Your task to perform on an android device: turn pop-ups off in chrome Image 0: 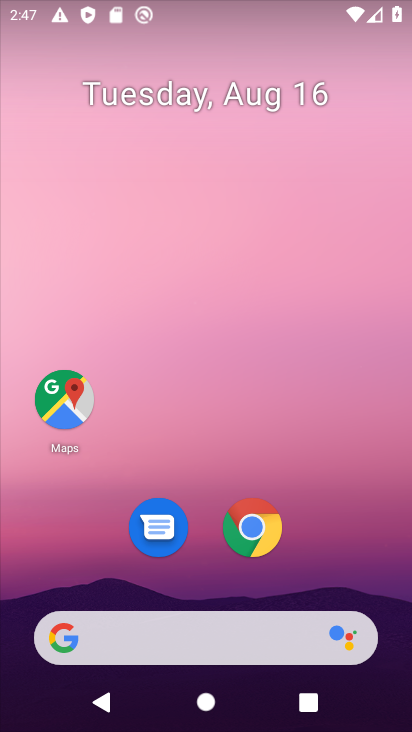
Step 0: press home button
Your task to perform on an android device: turn pop-ups off in chrome Image 1: 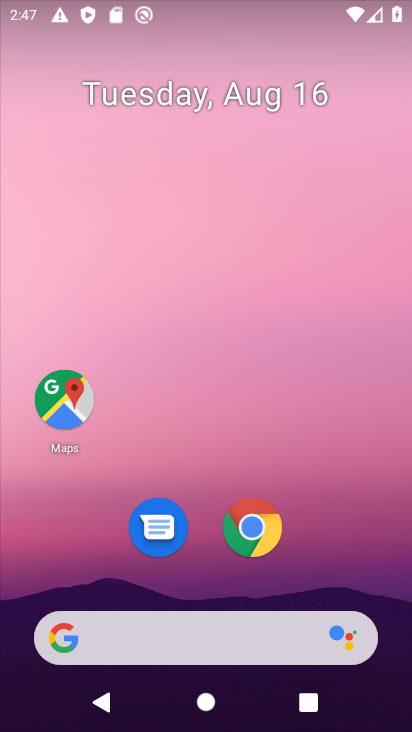
Step 1: click (251, 525)
Your task to perform on an android device: turn pop-ups off in chrome Image 2: 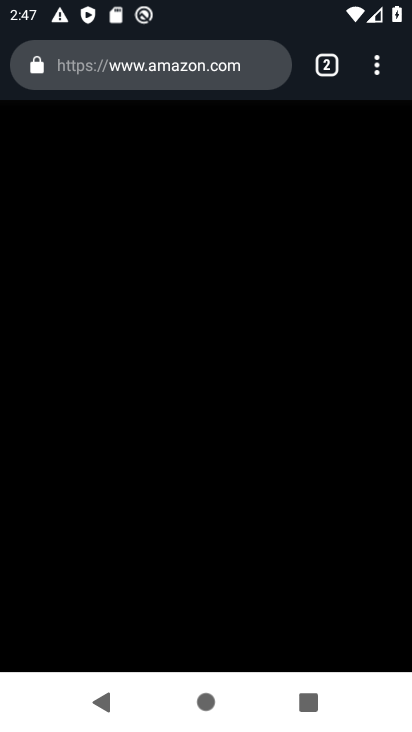
Step 2: click (323, 70)
Your task to perform on an android device: turn pop-ups off in chrome Image 3: 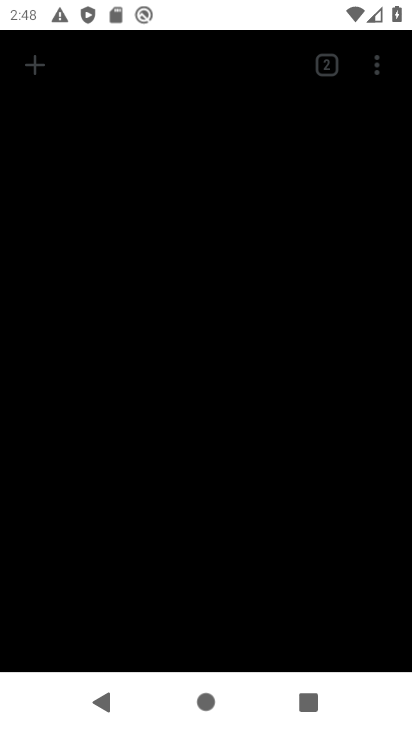
Step 3: click (35, 59)
Your task to perform on an android device: turn pop-ups off in chrome Image 4: 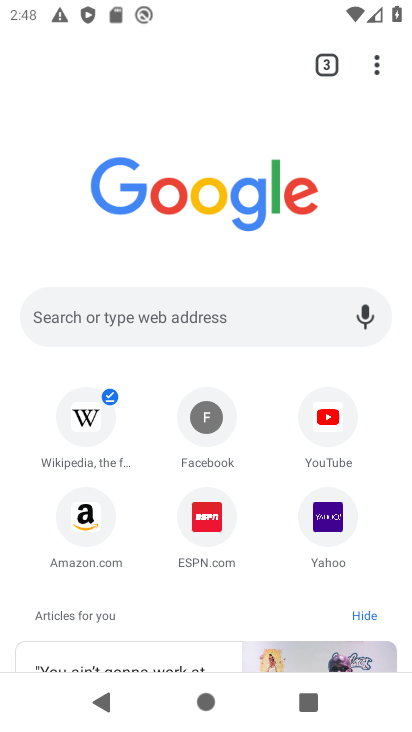
Step 4: click (376, 61)
Your task to perform on an android device: turn pop-ups off in chrome Image 5: 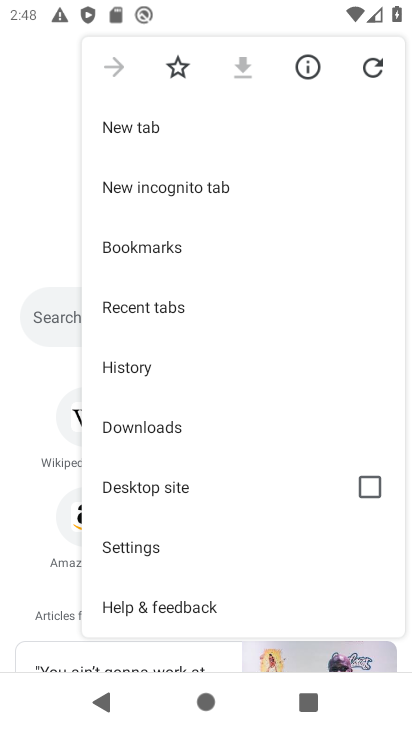
Step 5: click (161, 541)
Your task to perform on an android device: turn pop-ups off in chrome Image 6: 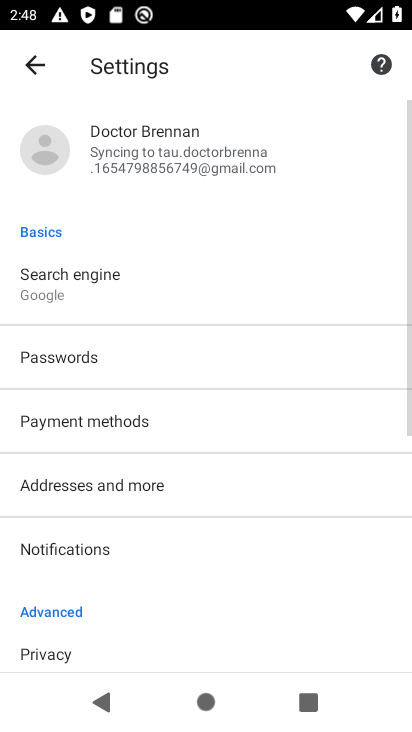
Step 6: drag from (165, 615) to (222, 130)
Your task to perform on an android device: turn pop-ups off in chrome Image 7: 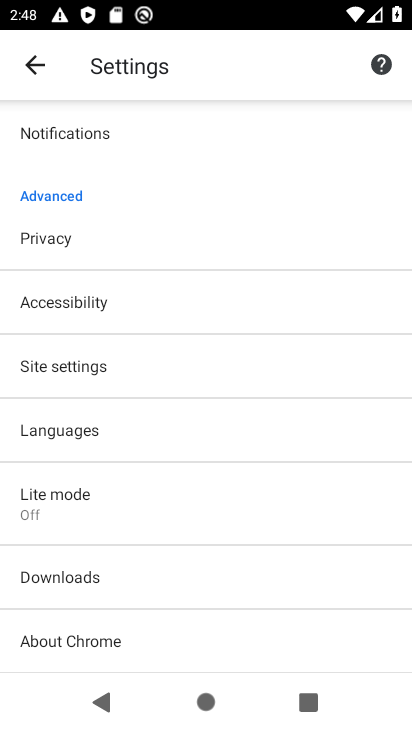
Step 7: click (123, 370)
Your task to perform on an android device: turn pop-ups off in chrome Image 8: 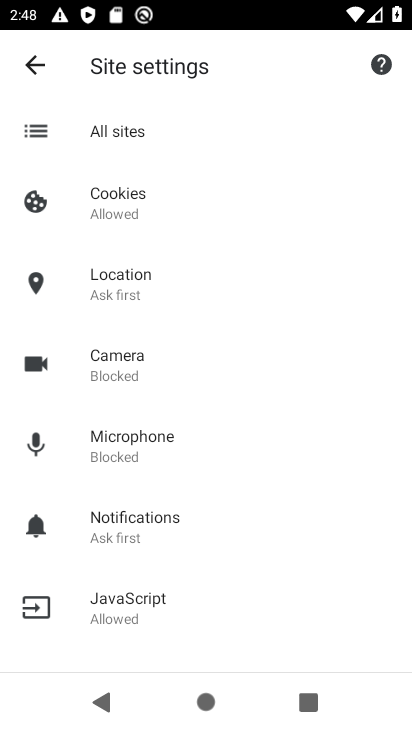
Step 8: drag from (173, 592) to (184, 216)
Your task to perform on an android device: turn pop-ups off in chrome Image 9: 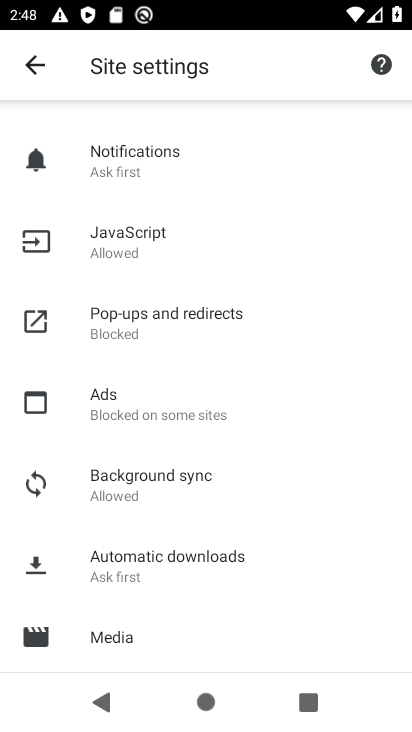
Step 9: click (156, 328)
Your task to perform on an android device: turn pop-ups off in chrome Image 10: 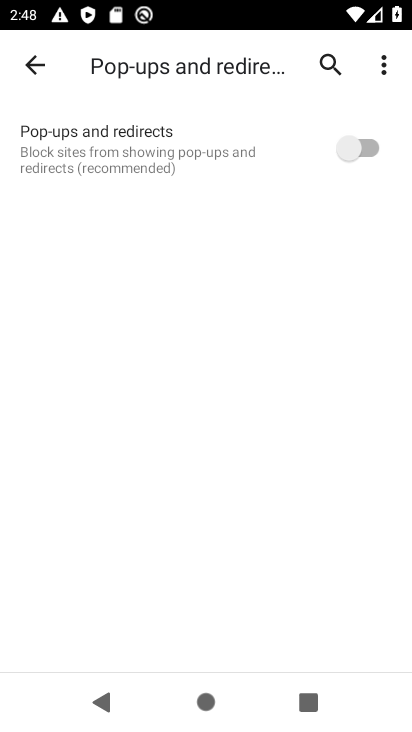
Step 10: task complete